Your task to perform on an android device: toggle notifications settings in the gmail app Image 0: 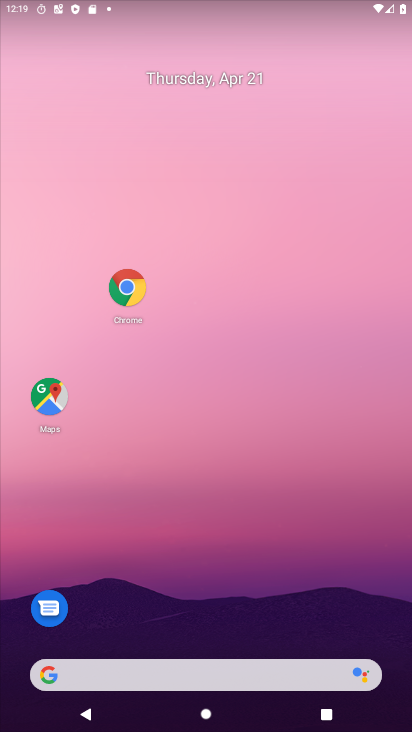
Step 0: drag from (229, 447) to (104, 57)
Your task to perform on an android device: toggle notifications settings in the gmail app Image 1: 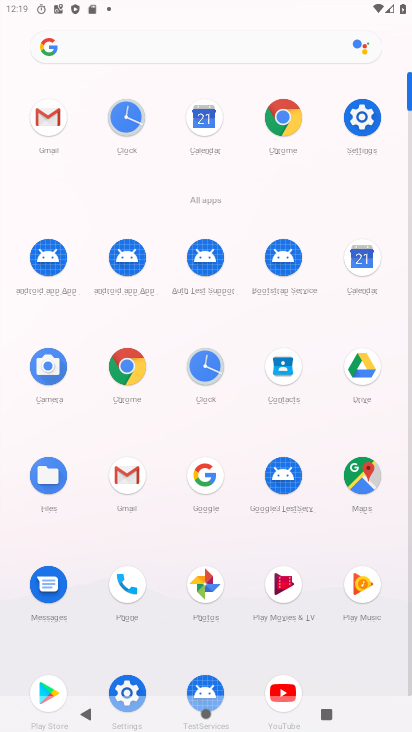
Step 1: click (126, 476)
Your task to perform on an android device: toggle notifications settings in the gmail app Image 2: 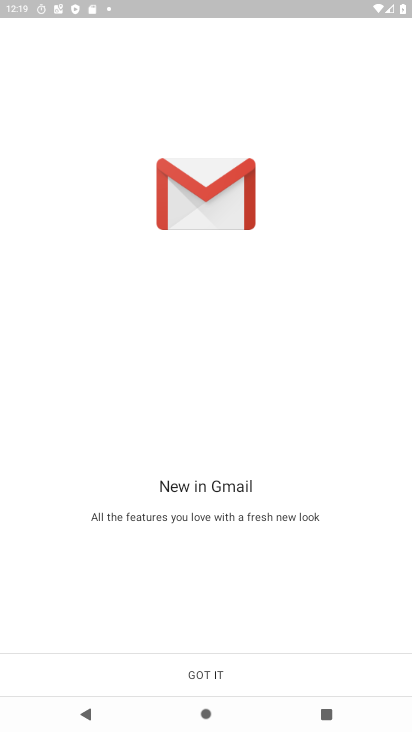
Step 2: click (198, 664)
Your task to perform on an android device: toggle notifications settings in the gmail app Image 3: 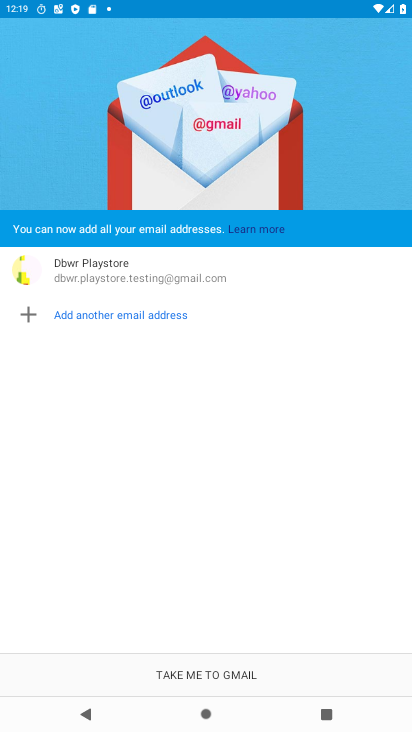
Step 3: click (206, 673)
Your task to perform on an android device: toggle notifications settings in the gmail app Image 4: 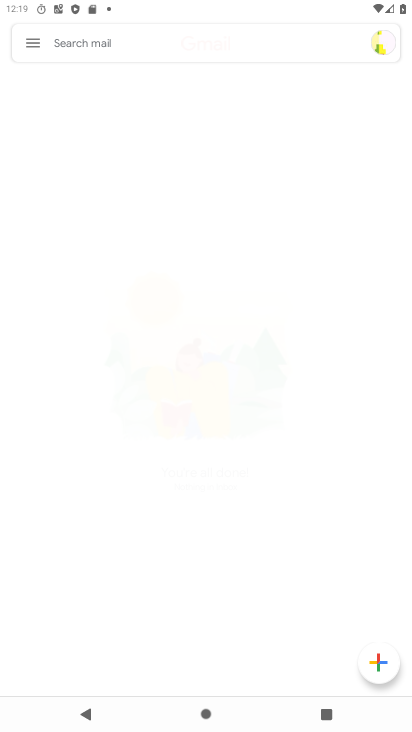
Step 4: click (30, 43)
Your task to perform on an android device: toggle notifications settings in the gmail app Image 5: 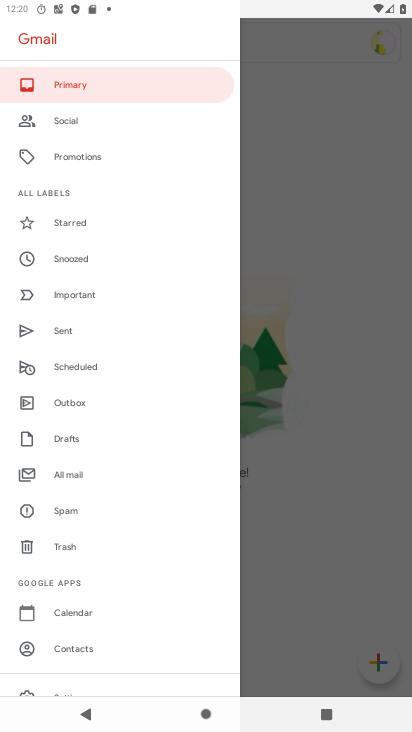
Step 5: drag from (99, 583) to (120, 300)
Your task to perform on an android device: toggle notifications settings in the gmail app Image 6: 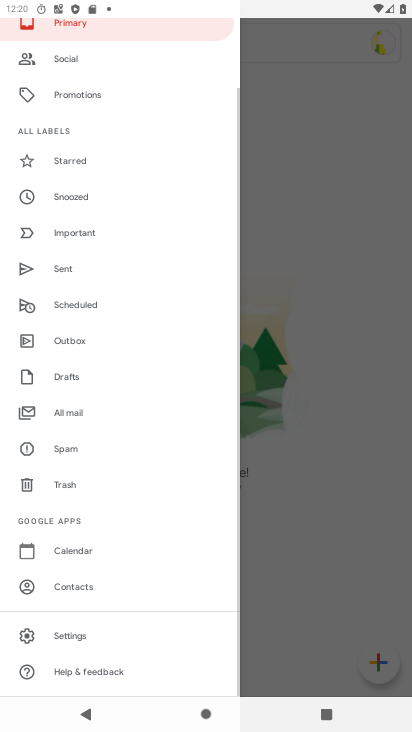
Step 6: click (64, 629)
Your task to perform on an android device: toggle notifications settings in the gmail app Image 7: 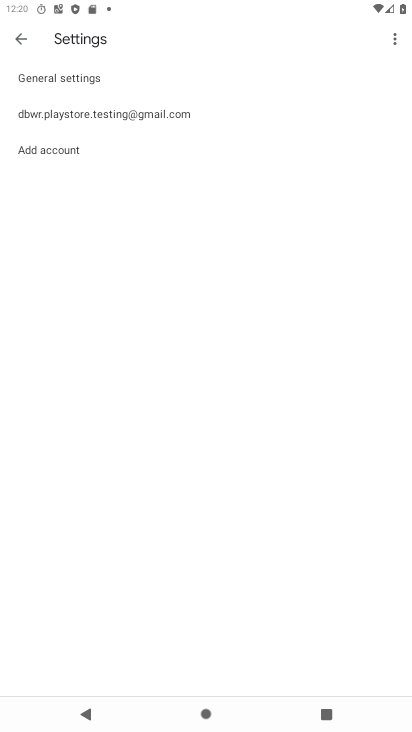
Step 7: click (114, 113)
Your task to perform on an android device: toggle notifications settings in the gmail app Image 8: 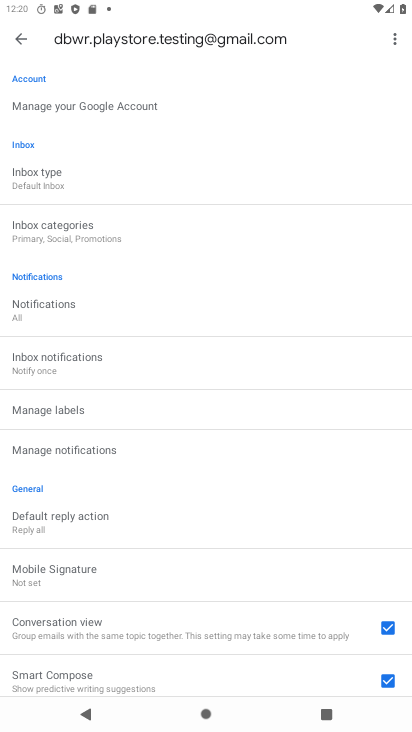
Step 8: click (46, 447)
Your task to perform on an android device: toggle notifications settings in the gmail app Image 9: 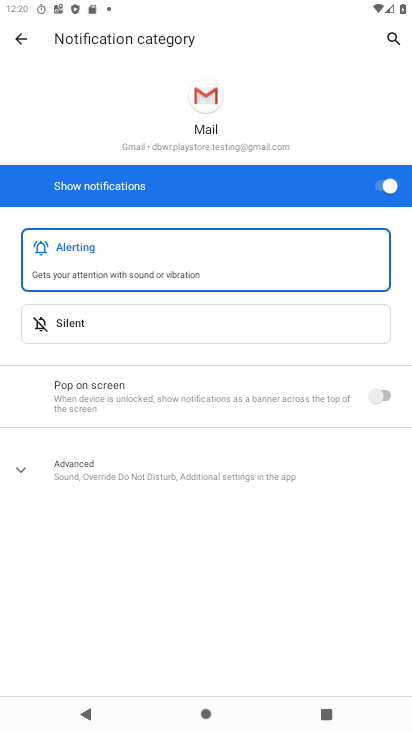
Step 9: click (394, 186)
Your task to perform on an android device: toggle notifications settings in the gmail app Image 10: 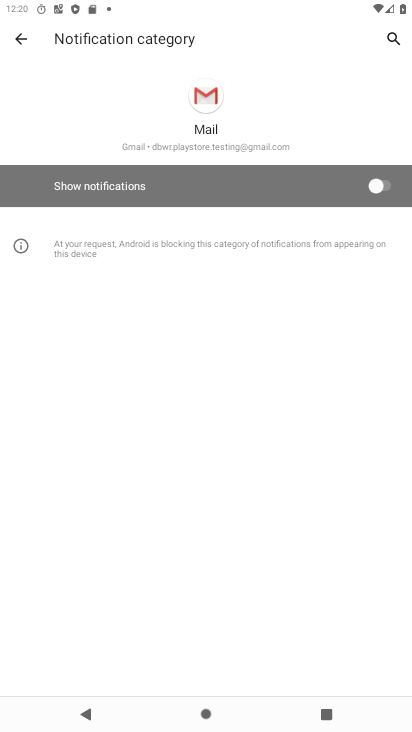
Step 10: task complete